Your task to perform on an android device: Open display settings Image 0: 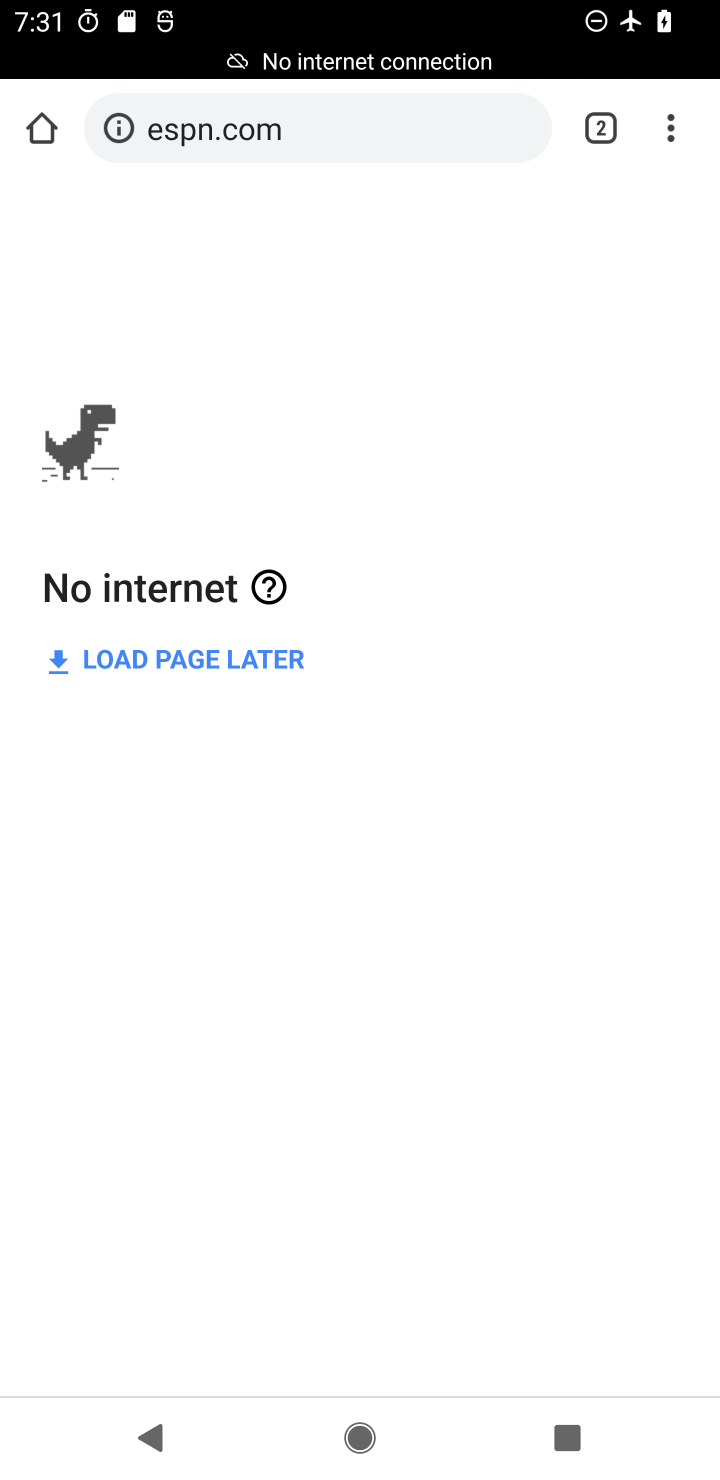
Step 0: press home button
Your task to perform on an android device: Open display settings Image 1: 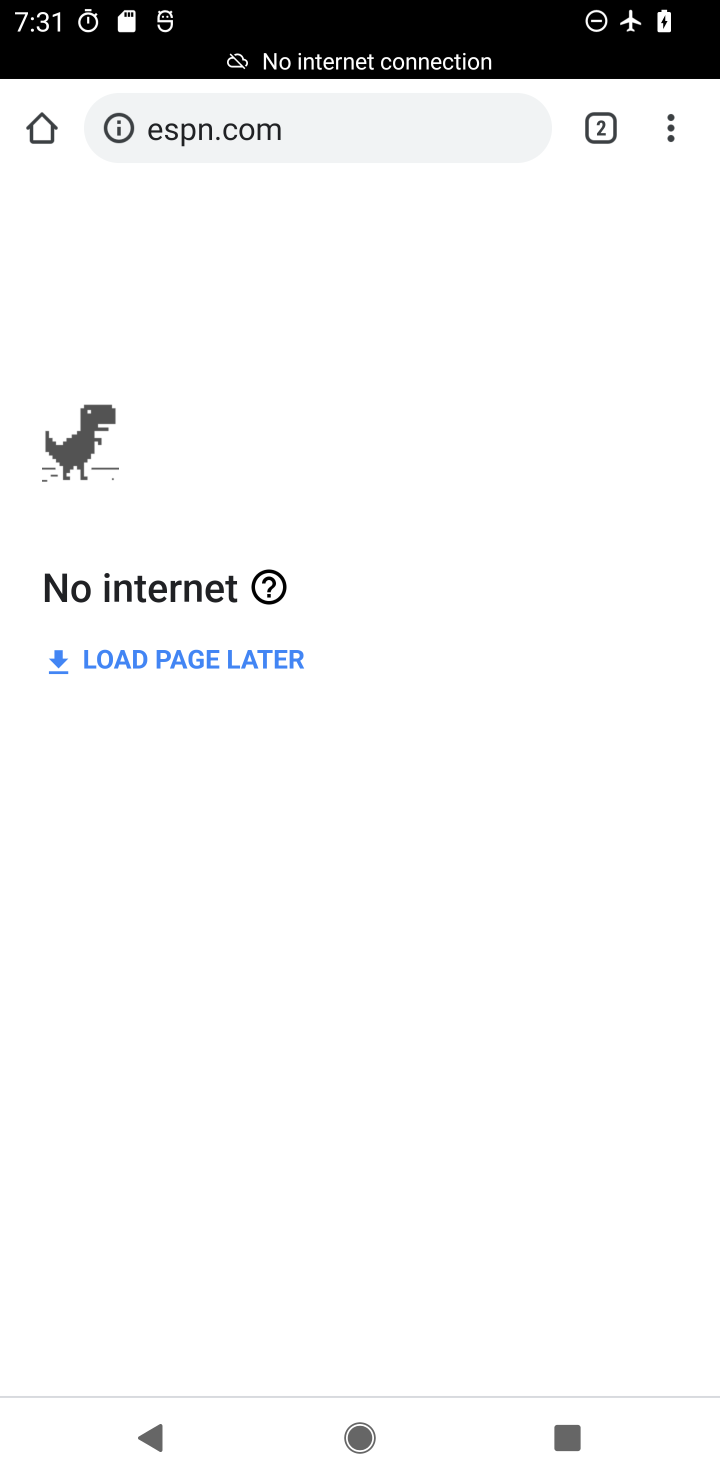
Step 1: press home button
Your task to perform on an android device: Open display settings Image 2: 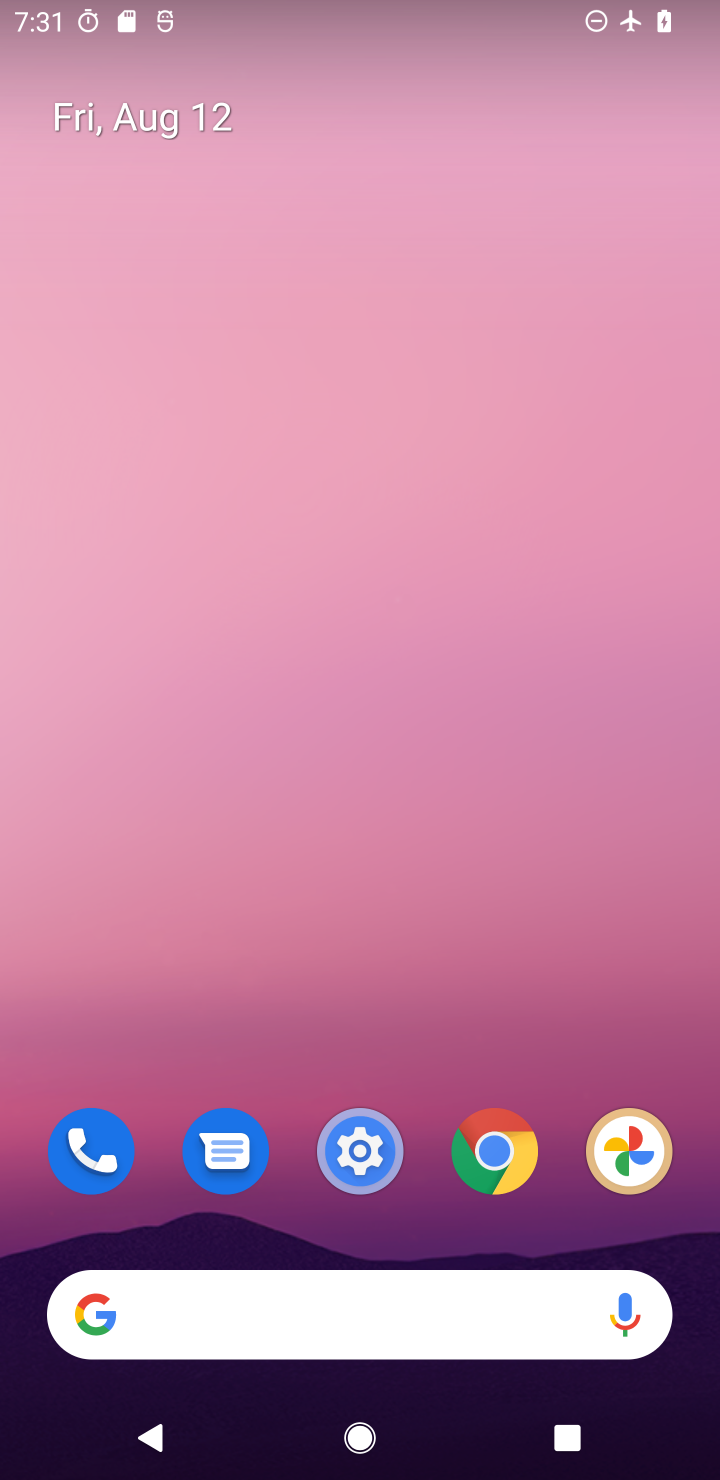
Step 2: drag from (500, 1046) to (600, 24)
Your task to perform on an android device: Open display settings Image 3: 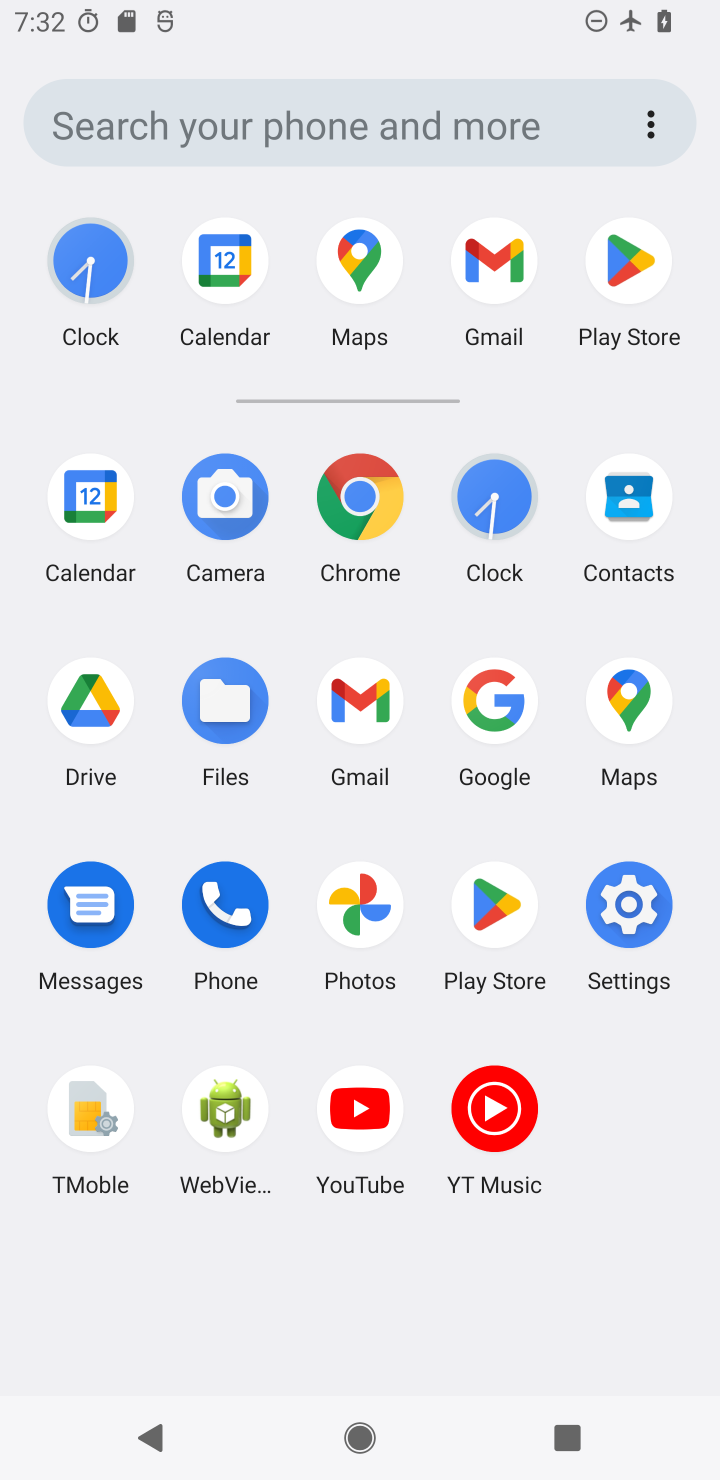
Step 3: click (624, 893)
Your task to perform on an android device: Open display settings Image 4: 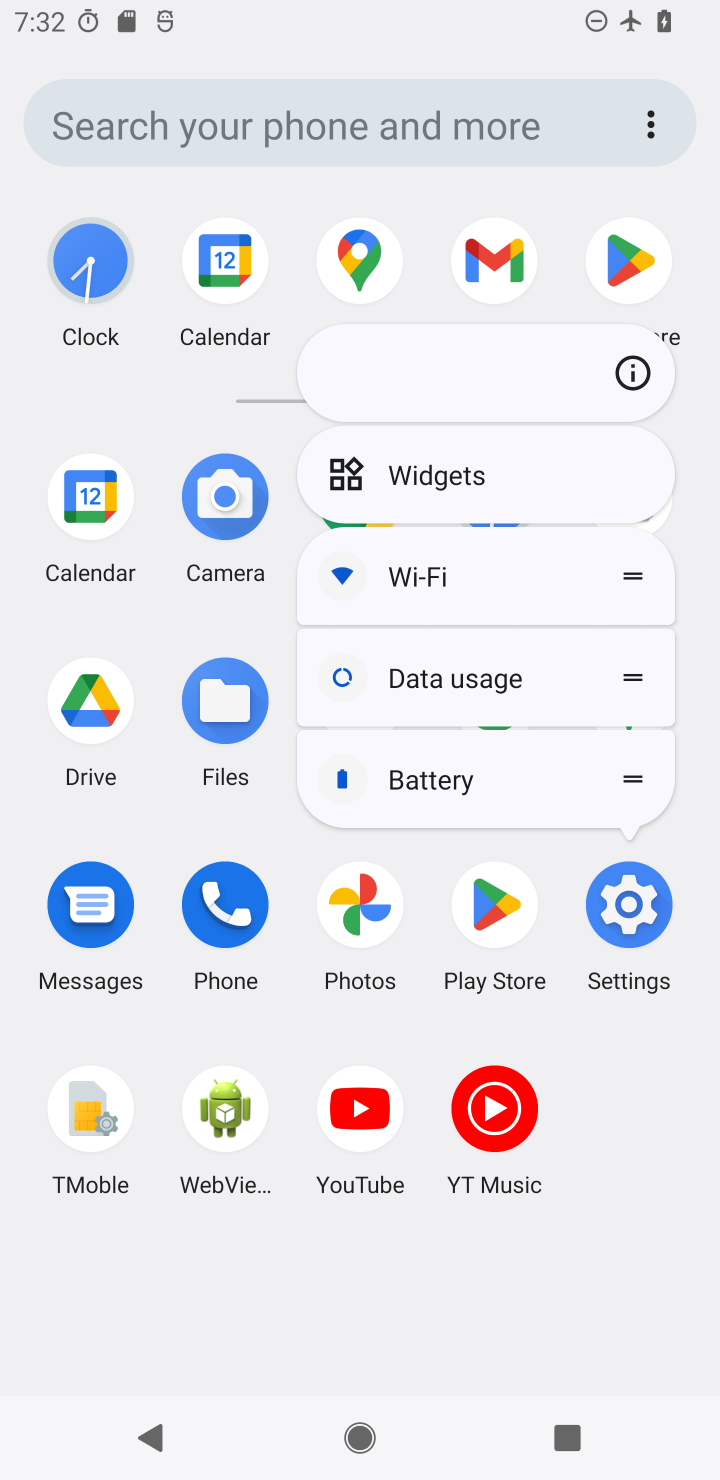
Step 4: click (626, 913)
Your task to perform on an android device: Open display settings Image 5: 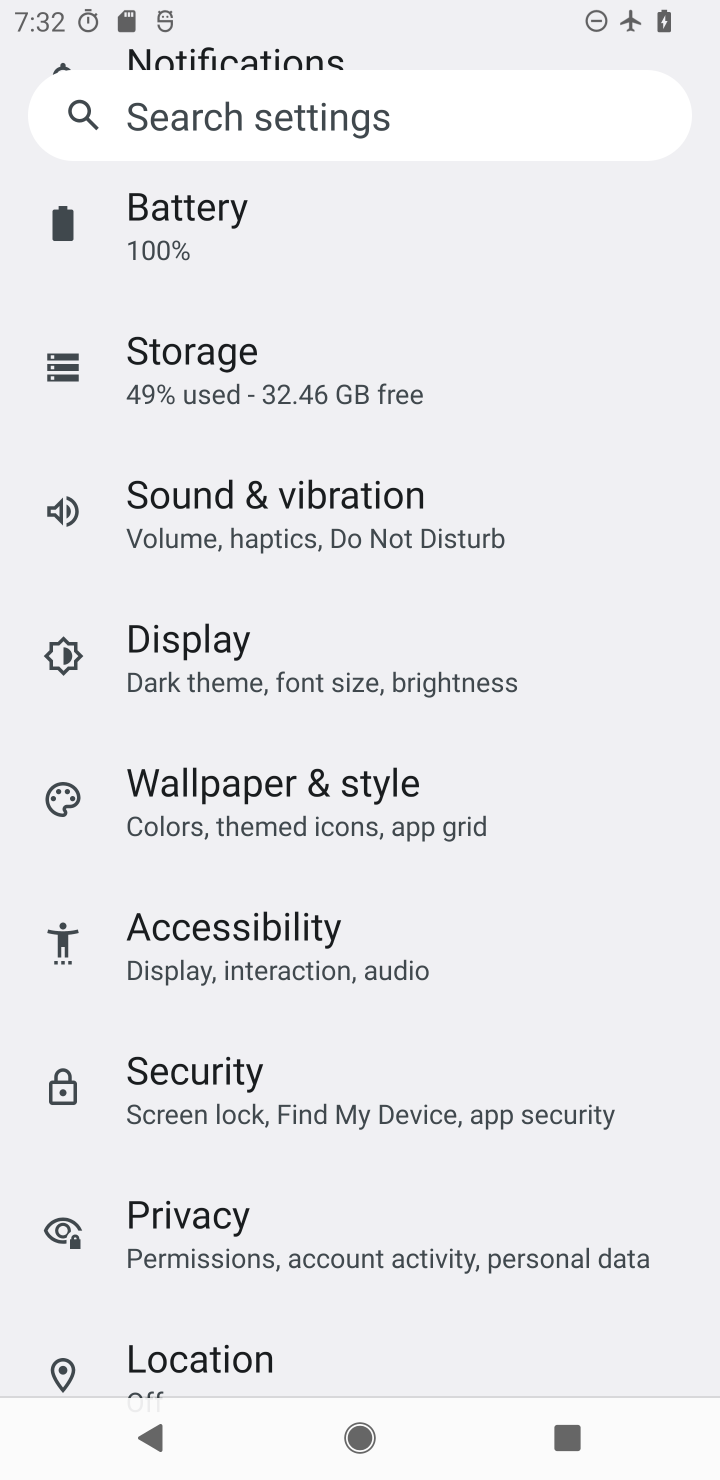
Step 5: drag from (547, 271) to (366, 1123)
Your task to perform on an android device: Open display settings Image 6: 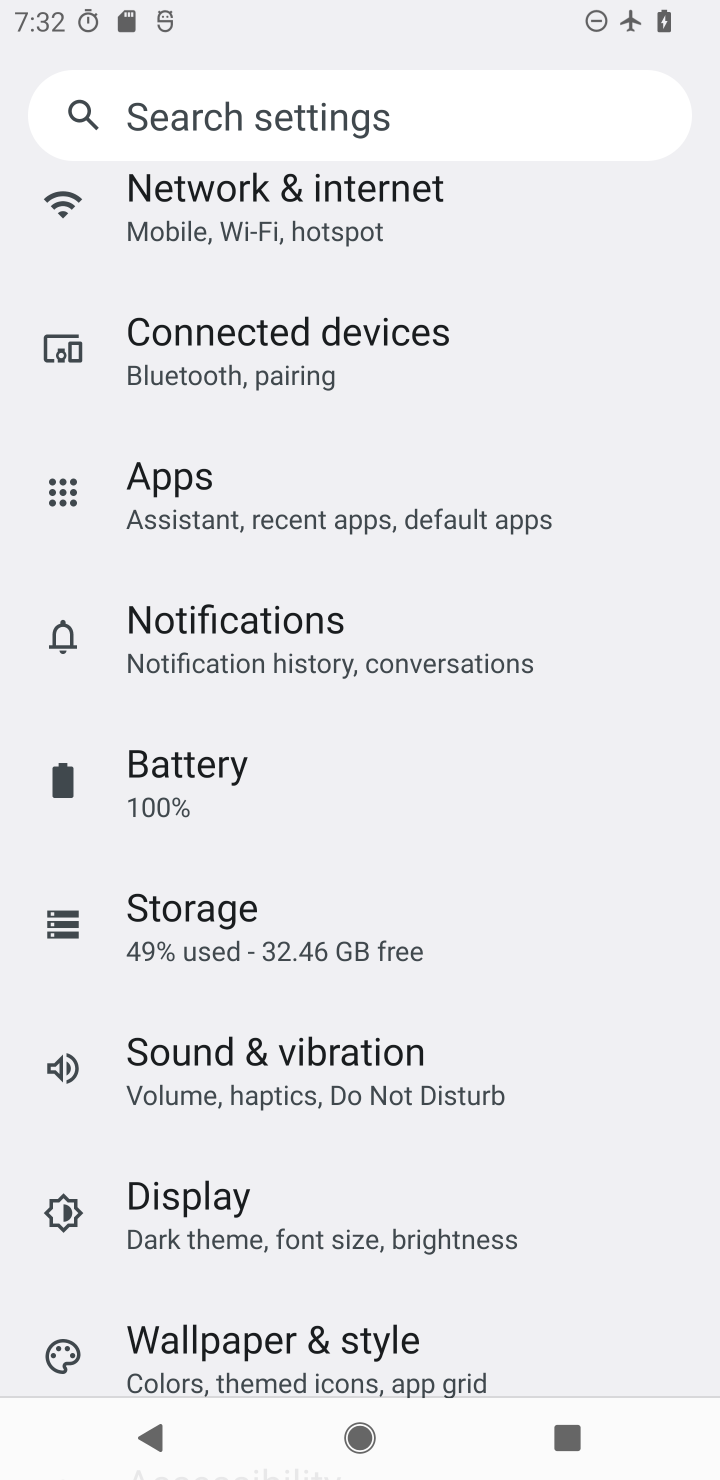
Step 6: drag from (483, 275) to (364, 1095)
Your task to perform on an android device: Open display settings Image 7: 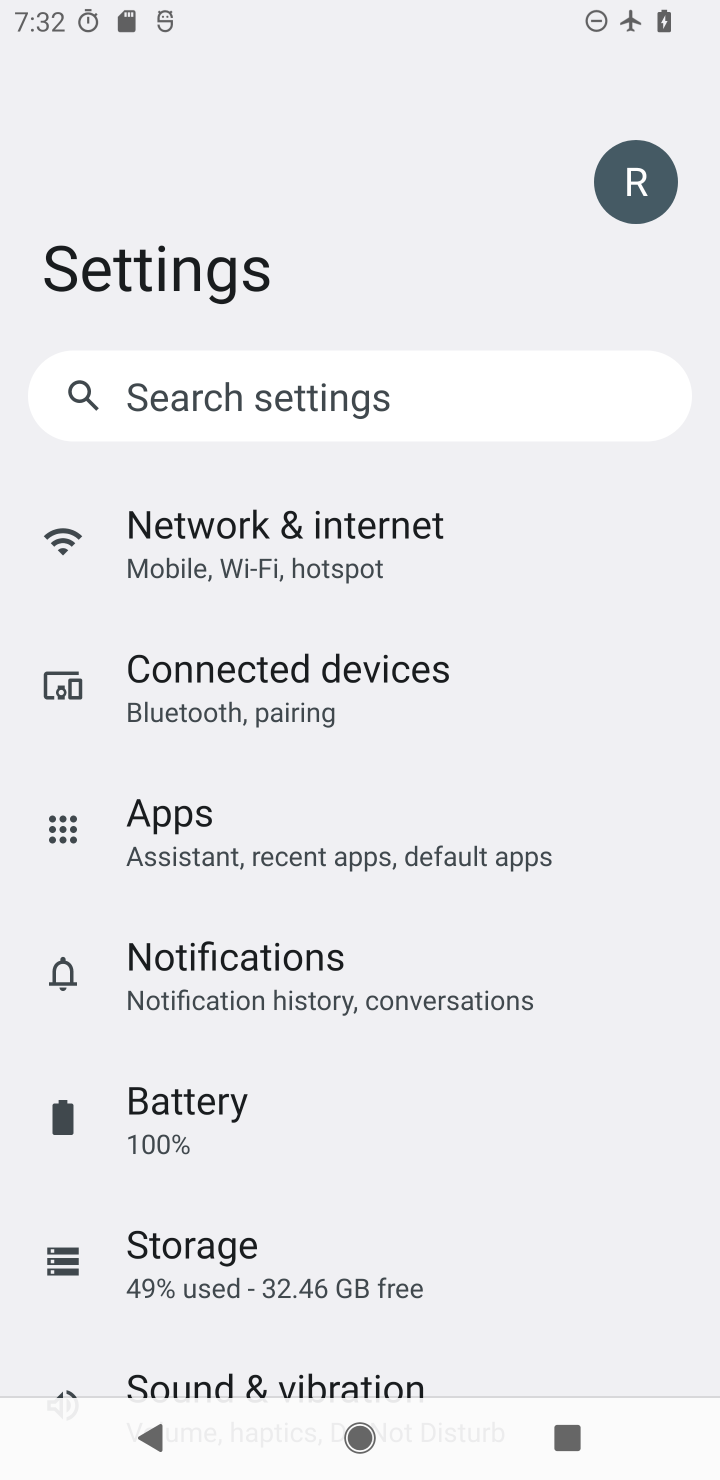
Step 7: drag from (507, 1188) to (600, 308)
Your task to perform on an android device: Open display settings Image 8: 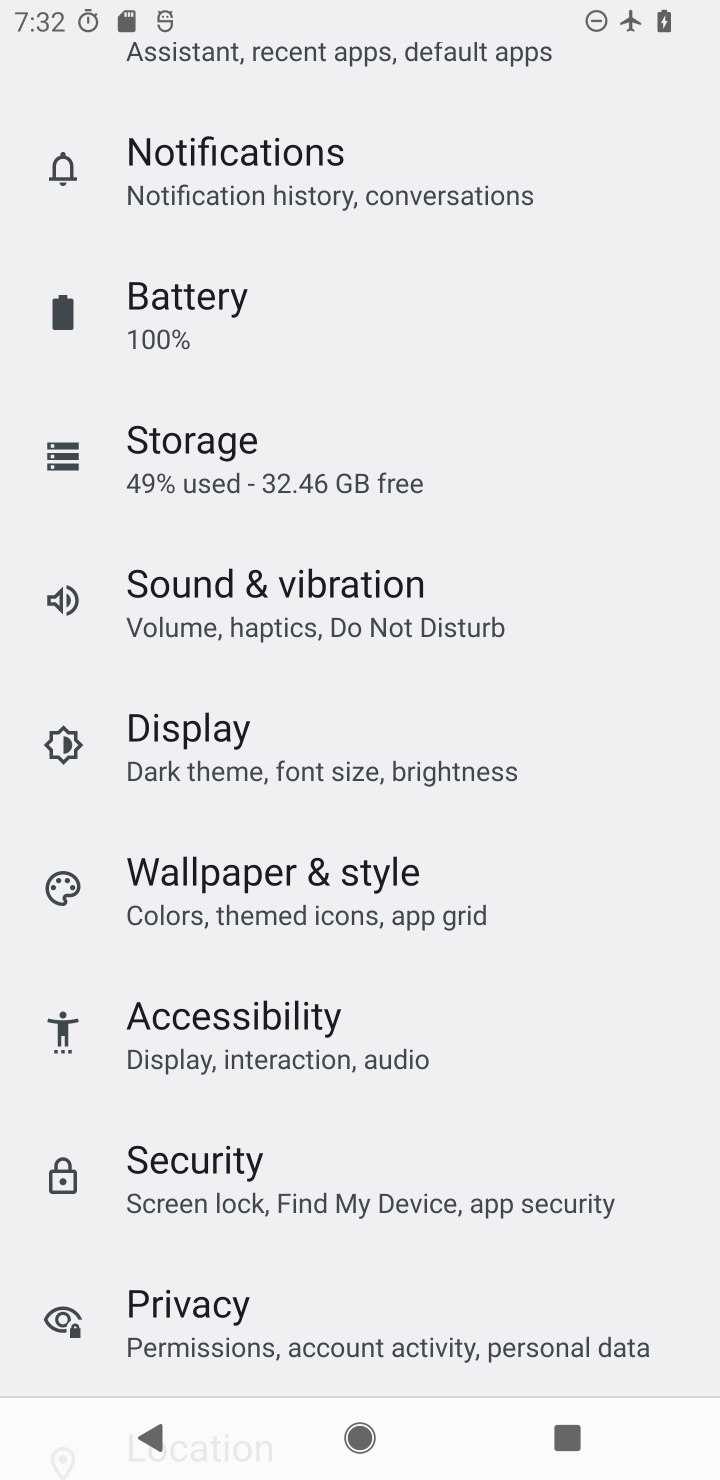
Step 8: drag from (485, 1226) to (603, 544)
Your task to perform on an android device: Open display settings Image 9: 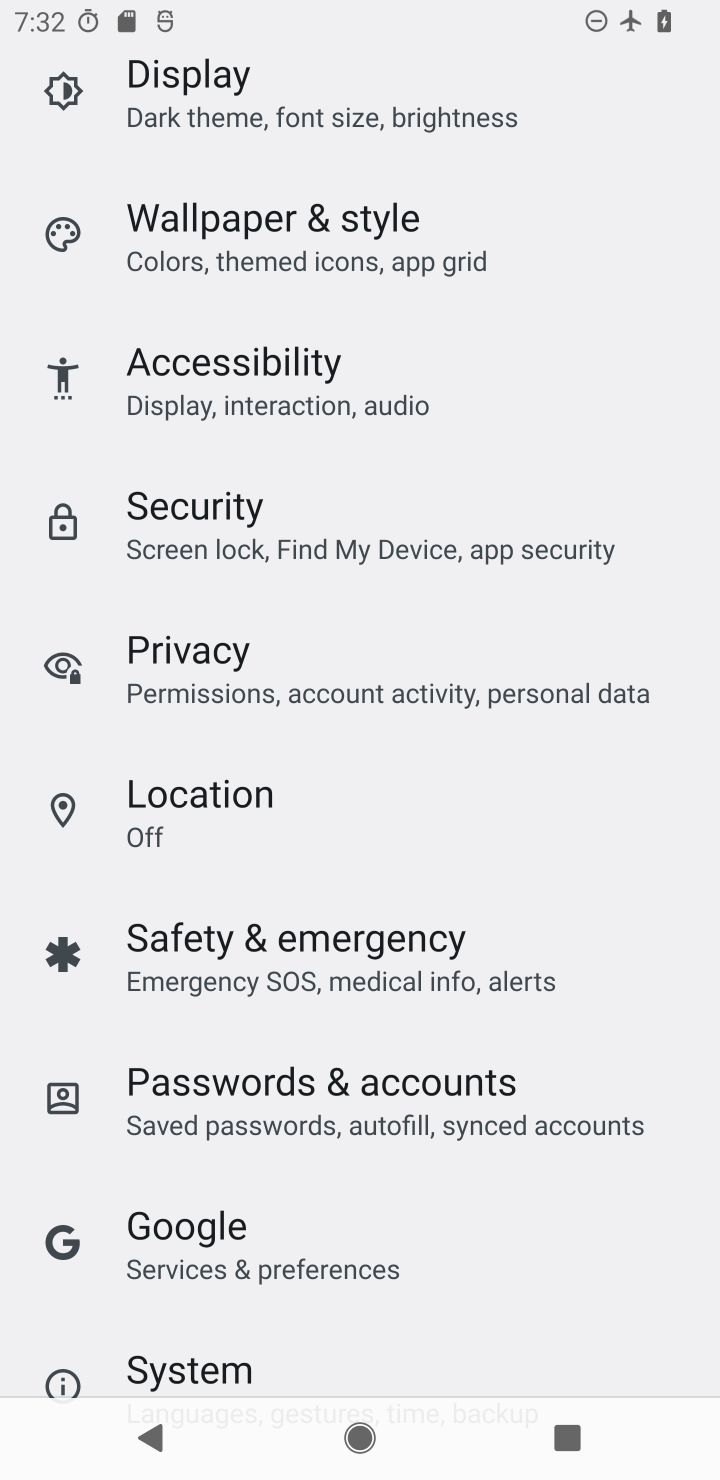
Step 9: drag from (479, 1215) to (596, 401)
Your task to perform on an android device: Open display settings Image 10: 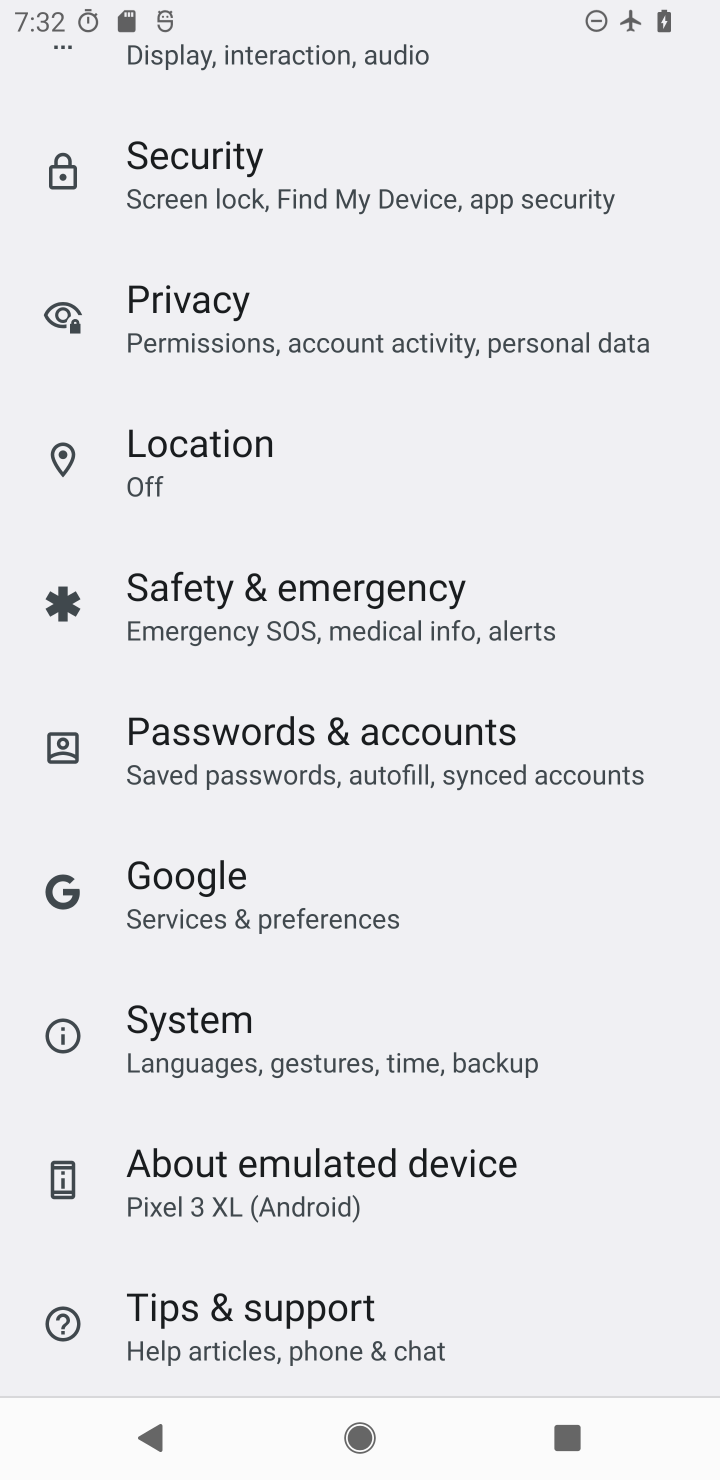
Step 10: drag from (420, 270) to (336, 1175)
Your task to perform on an android device: Open display settings Image 11: 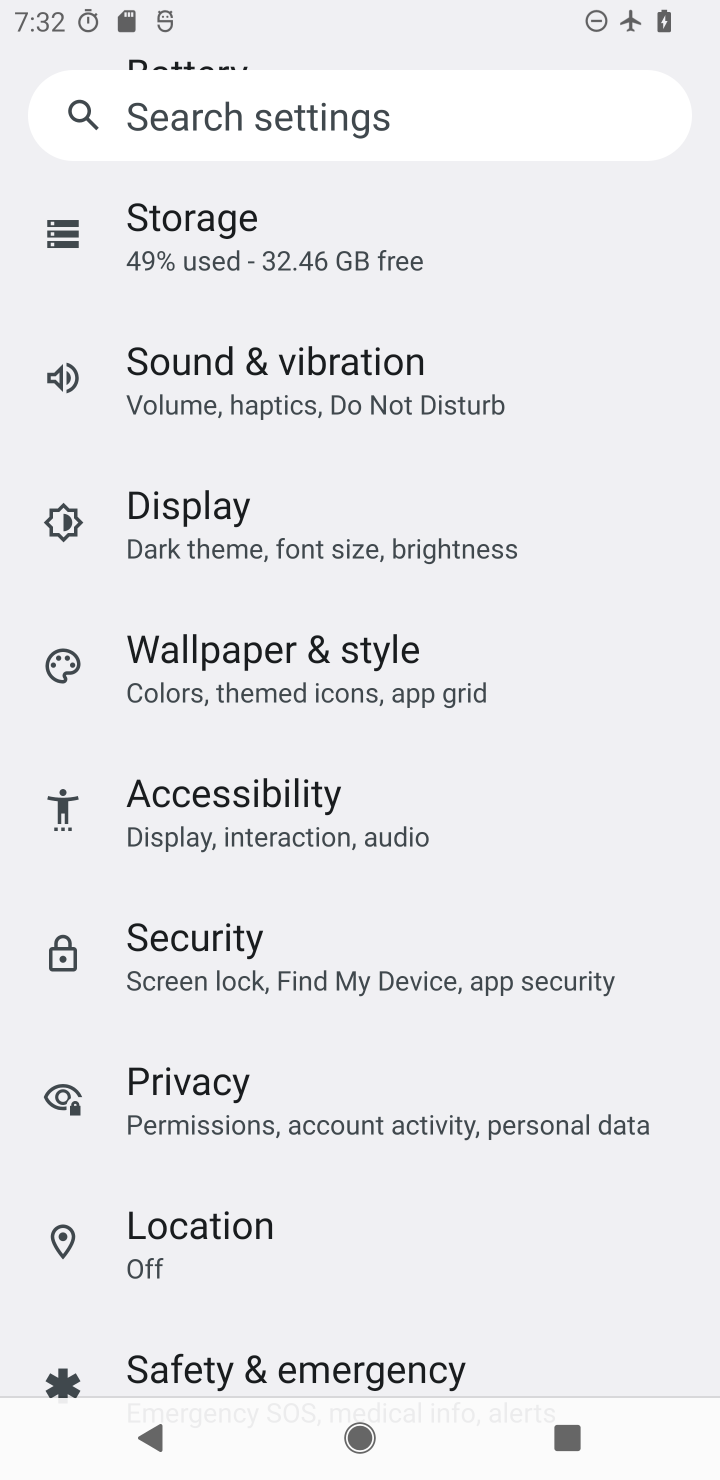
Step 11: click (362, 527)
Your task to perform on an android device: Open display settings Image 12: 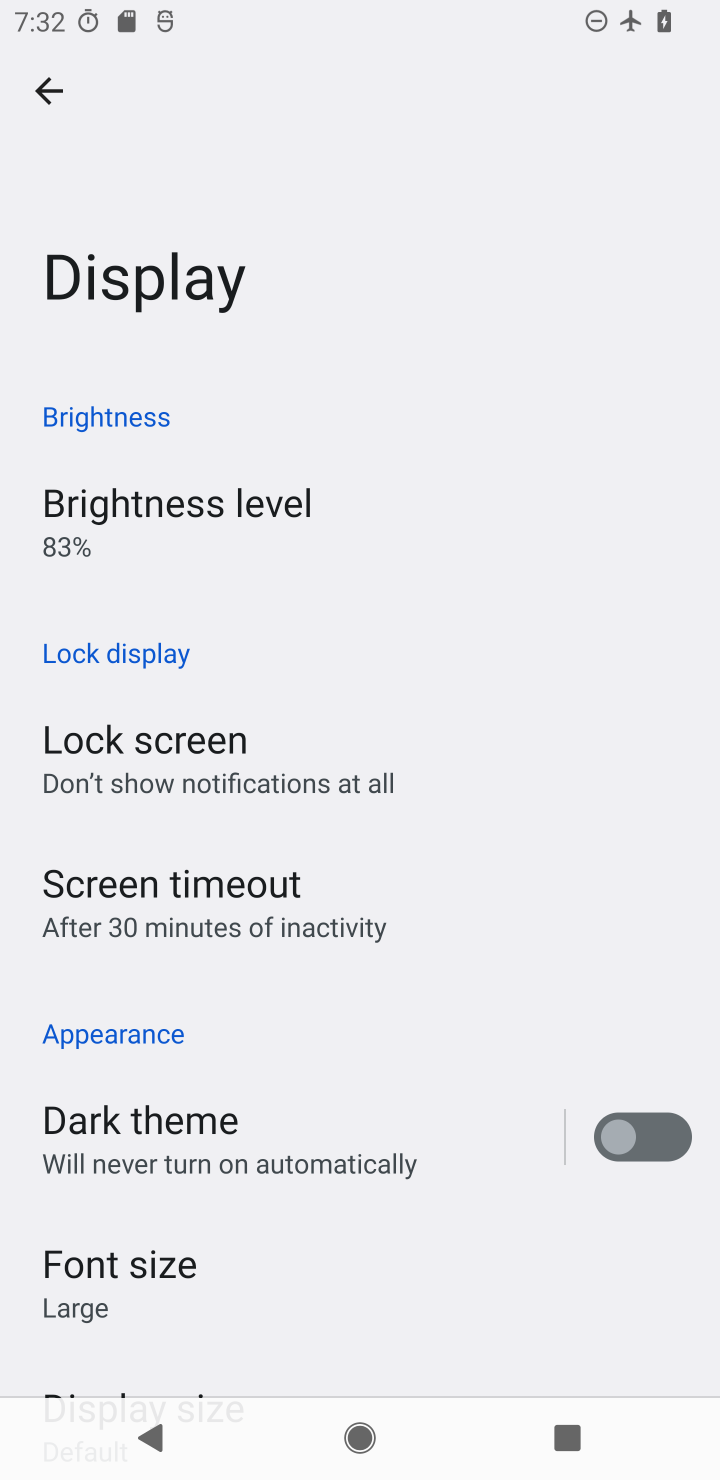
Step 12: task complete